Your task to perform on an android device: Go to network settings Image 0: 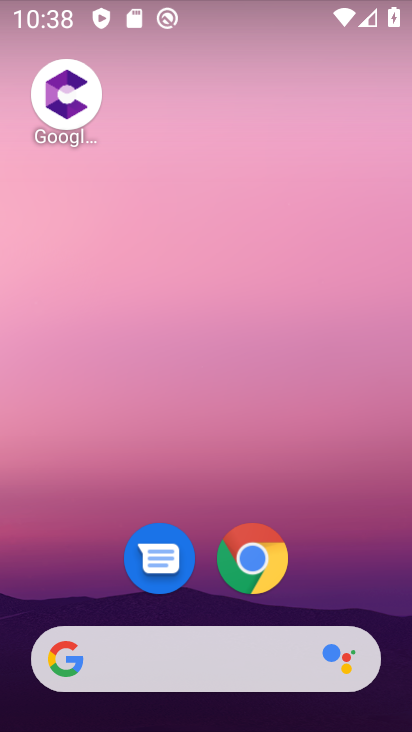
Step 0: drag from (357, 607) to (283, 1)
Your task to perform on an android device: Go to network settings Image 1: 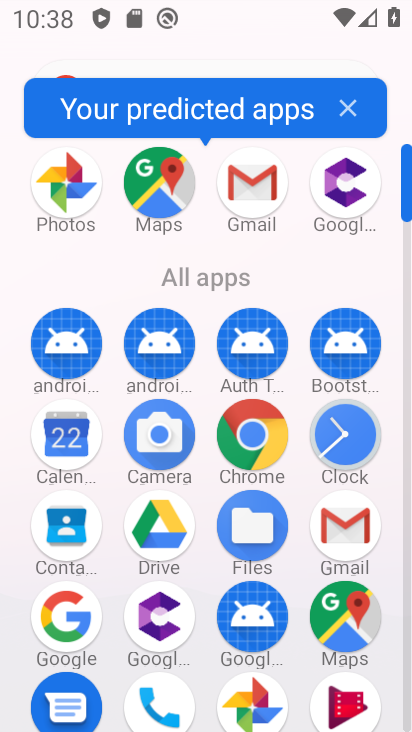
Step 1: click (405, 523)
Your task to perform on an android device: Go to network settings Image 2: 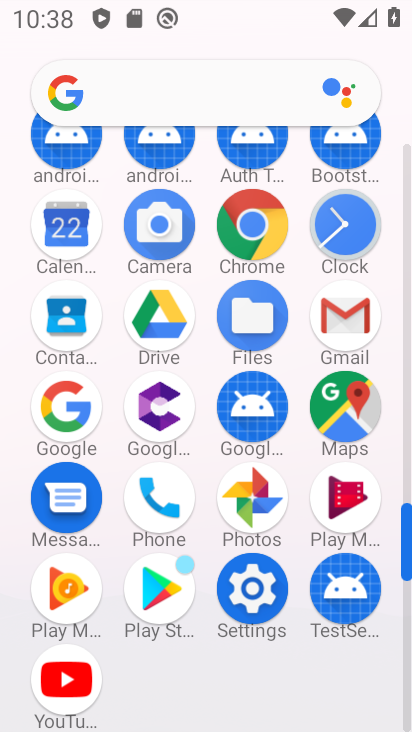
Step 2: click (266, 600)
Your task to perform on an android device: Go to network settings Image 3: 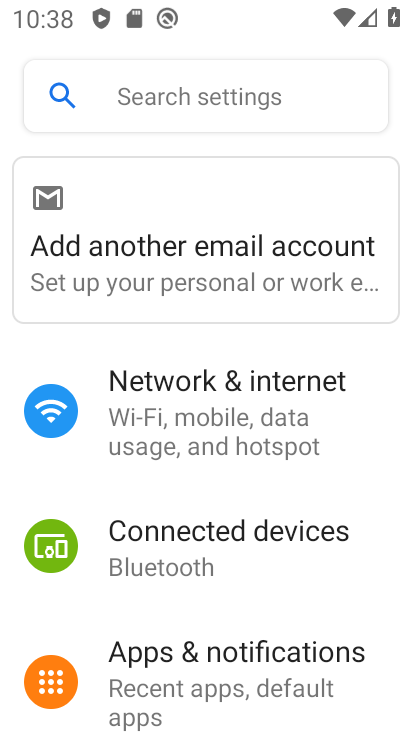
Step 3: click (209, 413)
Your task to perform on an android device: Go to network settings Image 4: 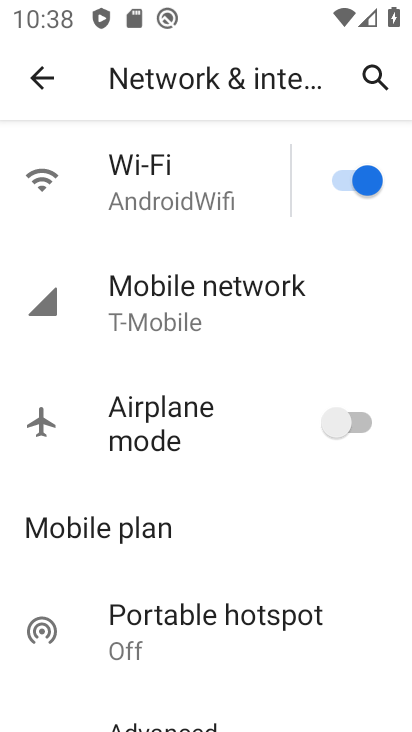
Step 4: click (160, 292)
Your task to perform on an android device: Go to network settings Image 5: 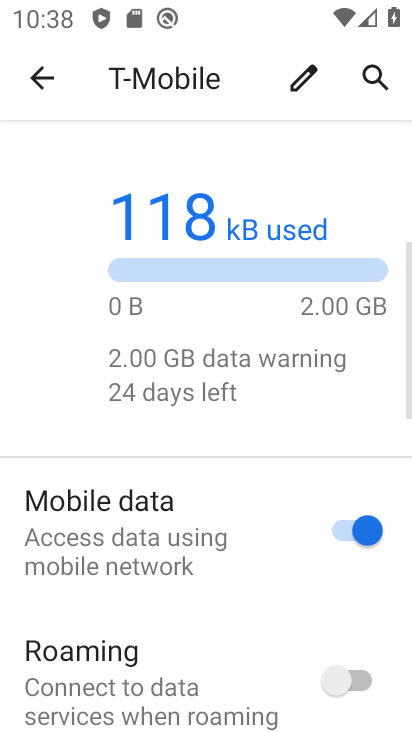
Step 5: drag from (171, 548) to (160, 10)
Your task to perform on an android device: Go to network settings Image 6: 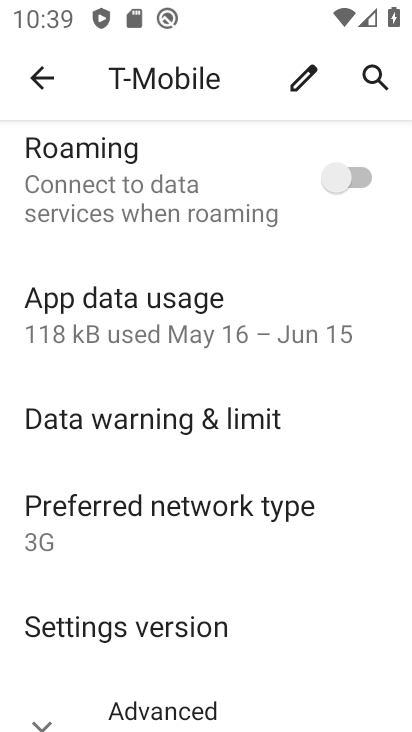
Step 6: drag from (130, 540) to (137, 287)
Your task to perform on an android device: Go to network settings Image 7: 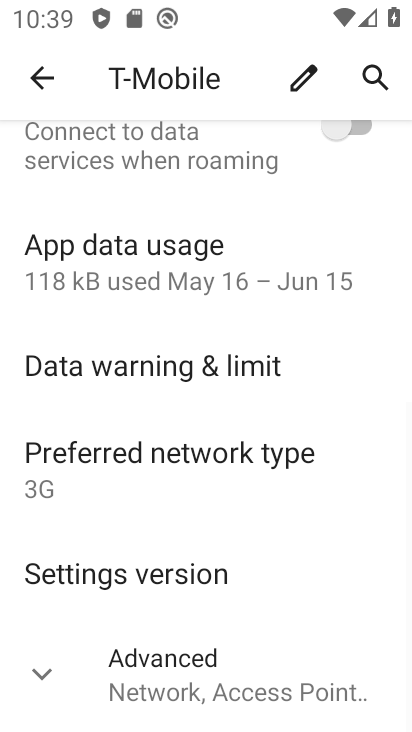
Step 7: click (44, 680)
Your task to perform on an android device: Go to network settings Image 8: 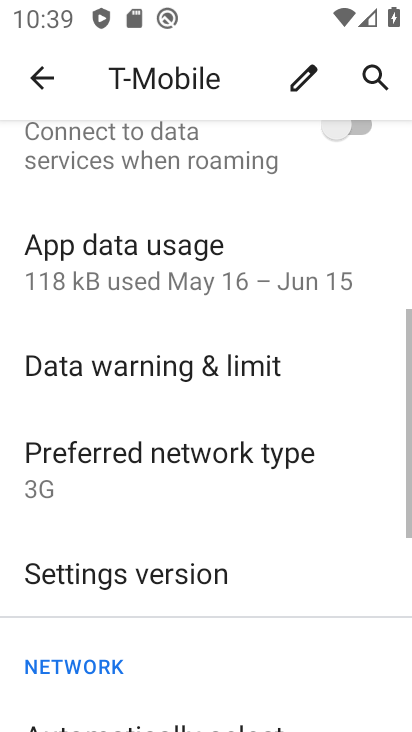
Step 8: task complete